Your task to perform on an android device: Search for a new eyeshadow on Sephora Image 0: 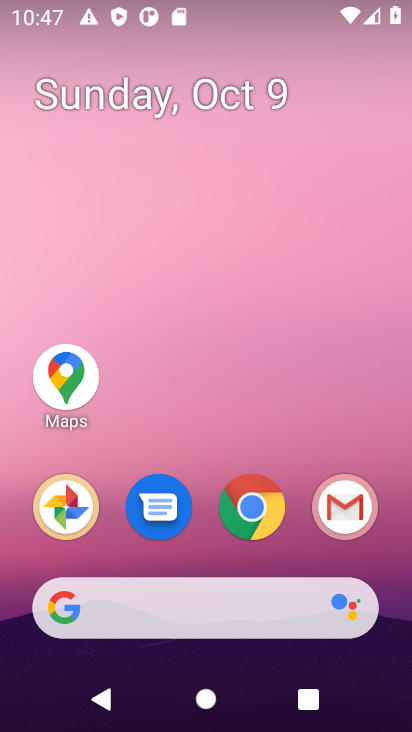
Step 0: press home button
Your task to perform on an android device: Search for a new eyeshadow on Sephora Image 1: 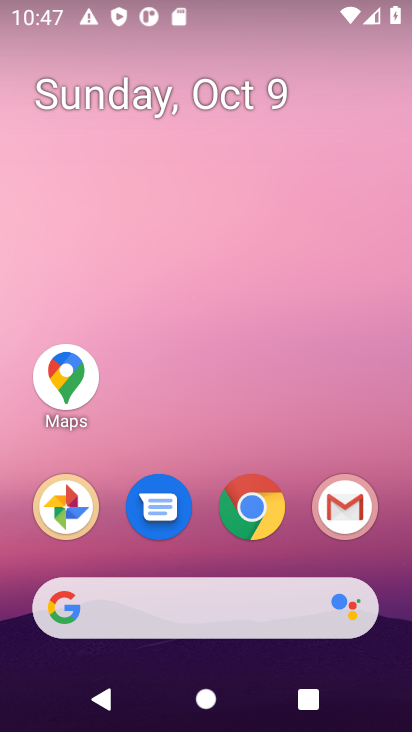
Step 1: click (214, 615)
Your task to perform on an android device: Search for a new eyeshadow on Sephora Image 2: 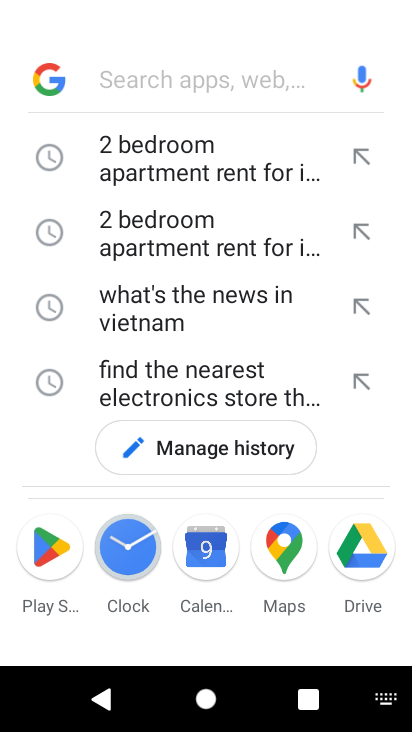
Step 2: type "new eyeshadow on Sephora"
Your task to perform on an android device: Search for a new eyeshadow on Sephora Image 3: 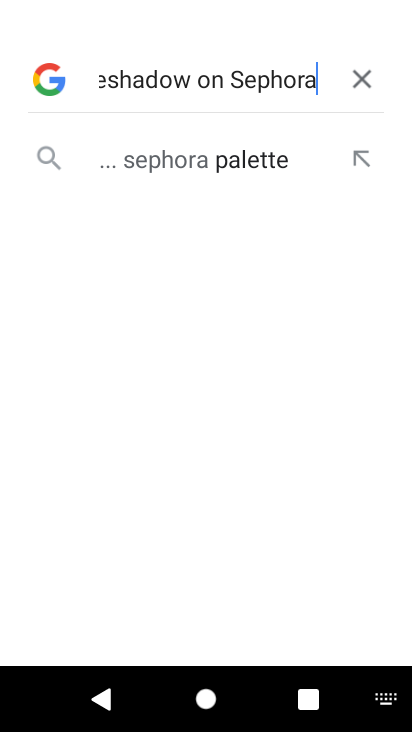
Step 3: press enter
Your task to perform on an android device: Search for a new eyeshadow on Sephora Image 4: 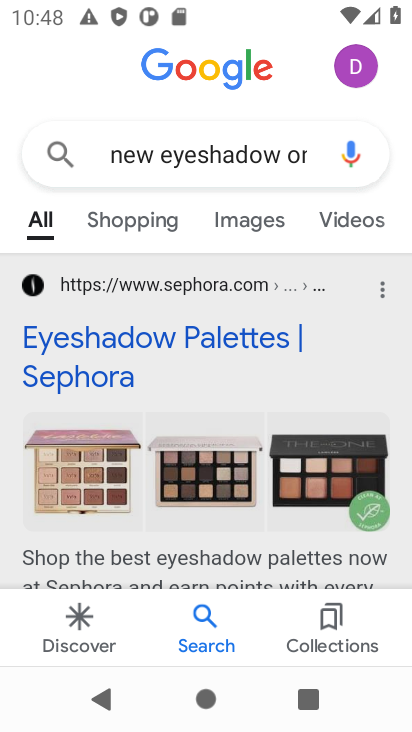
Step 4: task complete